Your task to perform on an android device: Is it going to rain today? Image 0: 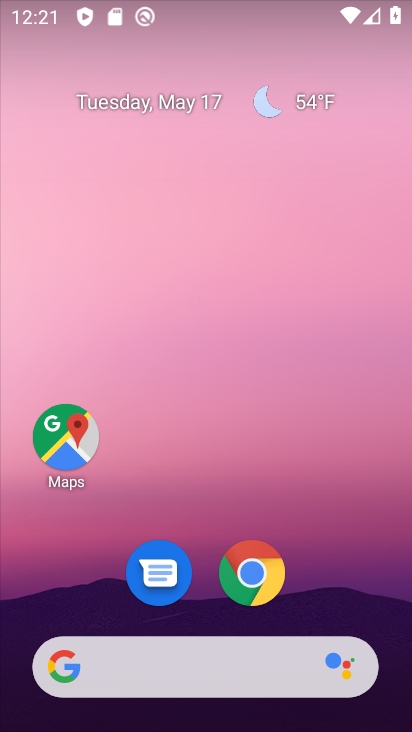
Step 0: press home button
Your task to perform on an android device: Is it going to rain today? Image 1: 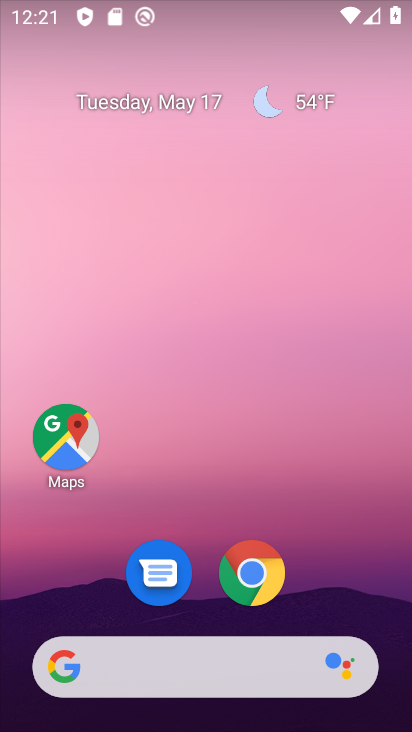
Step 1: drag from (204, 619) to (229, 76)
Your task to perform on an android device: Is it going to rain today? Image 2: 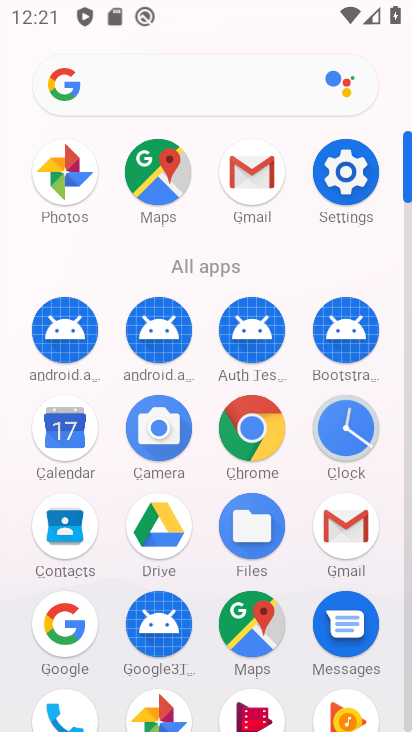
Step 2: press back button
Your task to perform on an android device: Is it going to rain today? Image 3: 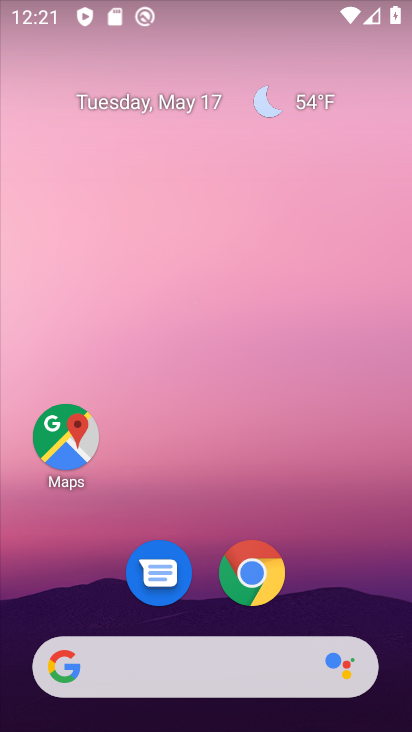
Step 3: click (310, 98)
Your task to perform on an android device: Is it going to rain today? Image 4: 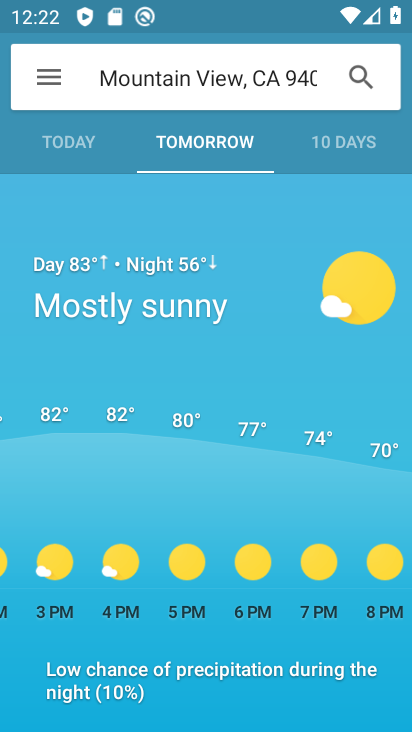
Step 4: click (47, 145)
Your task to perform on an android device: Is it going to rain today? Image 5: 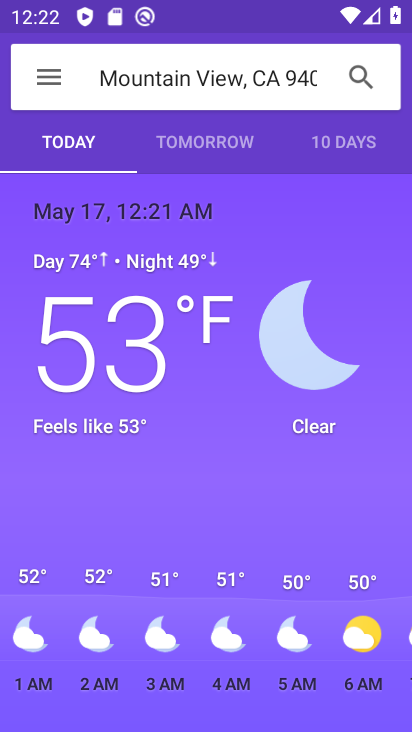
Step 5: task complete